Your task to perform on an android device: Look up the best selling patio furniture on Home Depot Image 0: 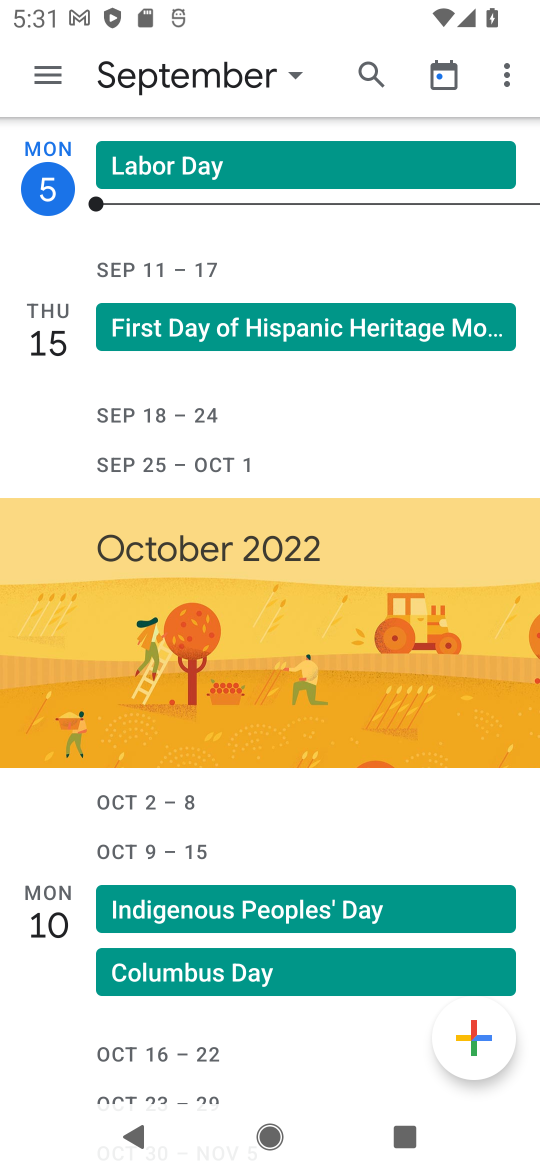
Step 0: press home button
Your task to perform on an android device: Look up the best selling patio furniture on Home Depot Image 1: 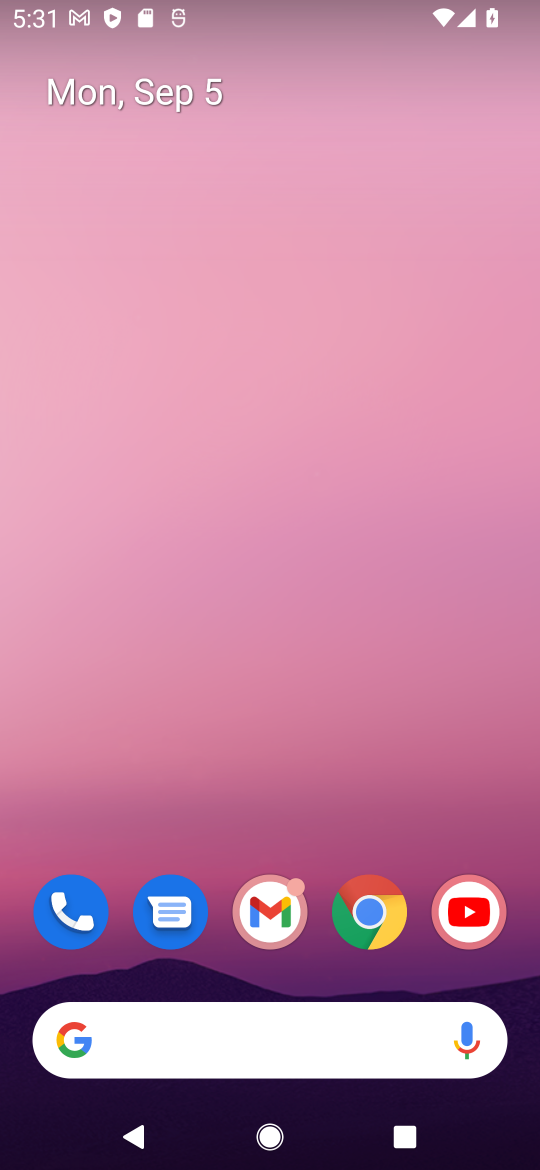
Step 1: click (375, 916)
Your task to perform on an android device: Look up the best selling patio furniture on Home Depot Image 2: 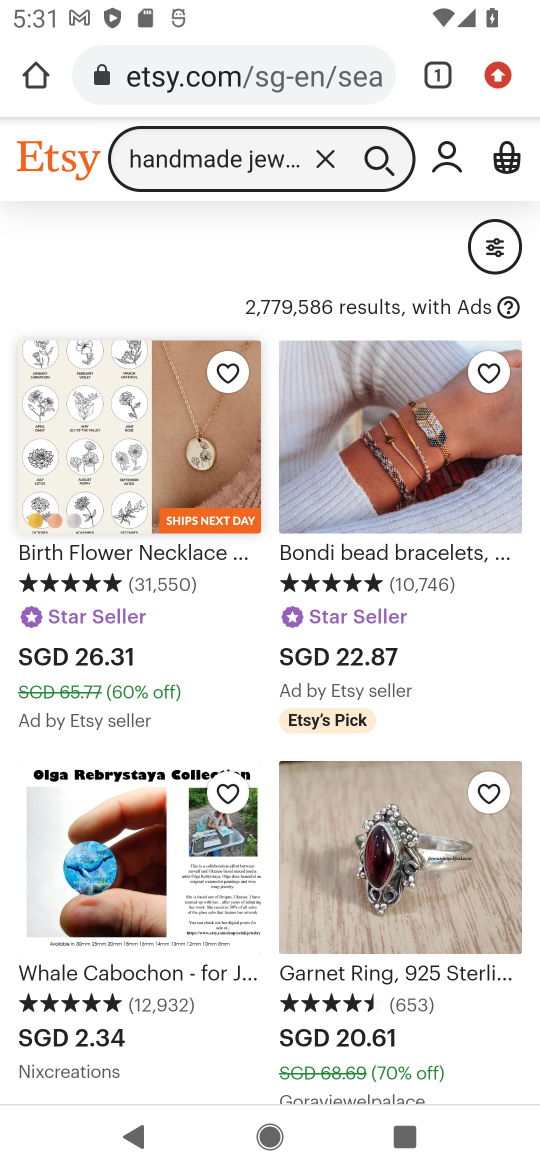
Step 2: click (248, 73)
Your task to perform on an android device: Look up the best selling patio furniture on Home Depot Image 3: 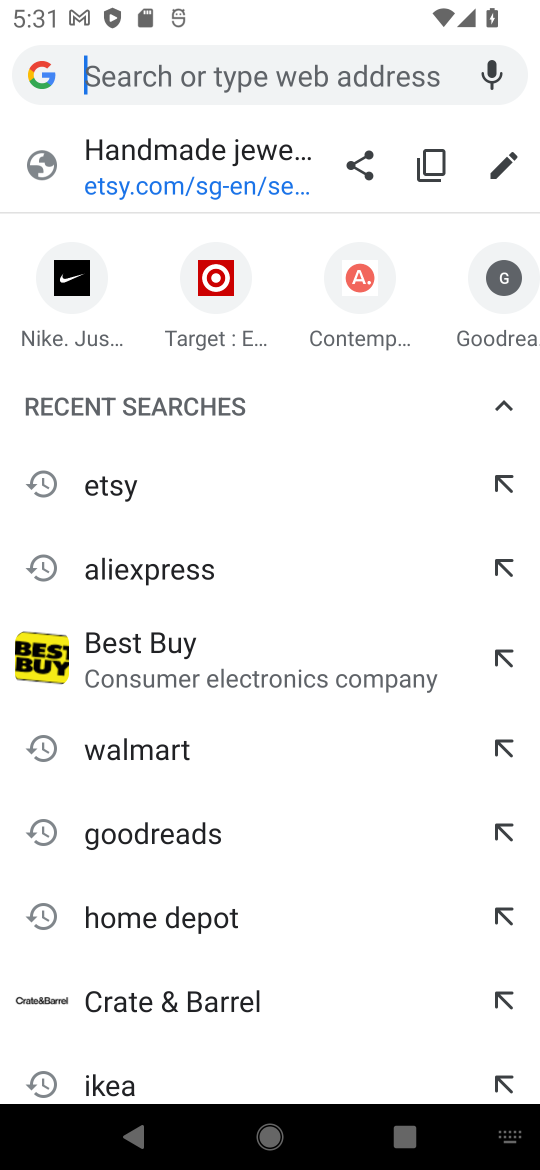
Step 3: type "home depot"
Your task to perform on an android device: Look up the best selling patio furniture on Home Depot Image 4: 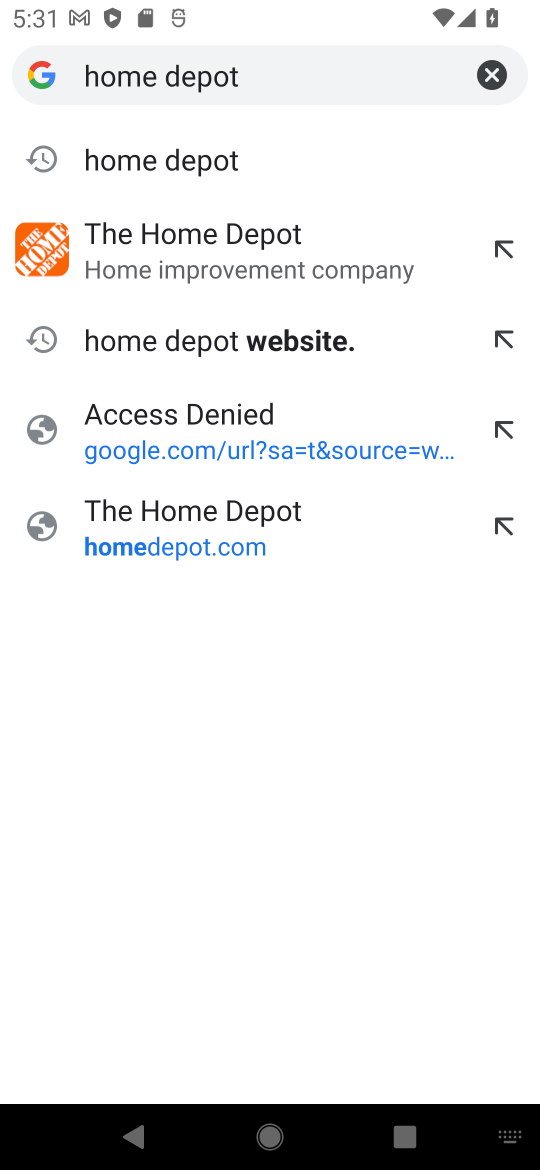
Step 4: press enter
Your task to perform on an android device: Look up the best selling patio furniture on Home Depot Image 5: 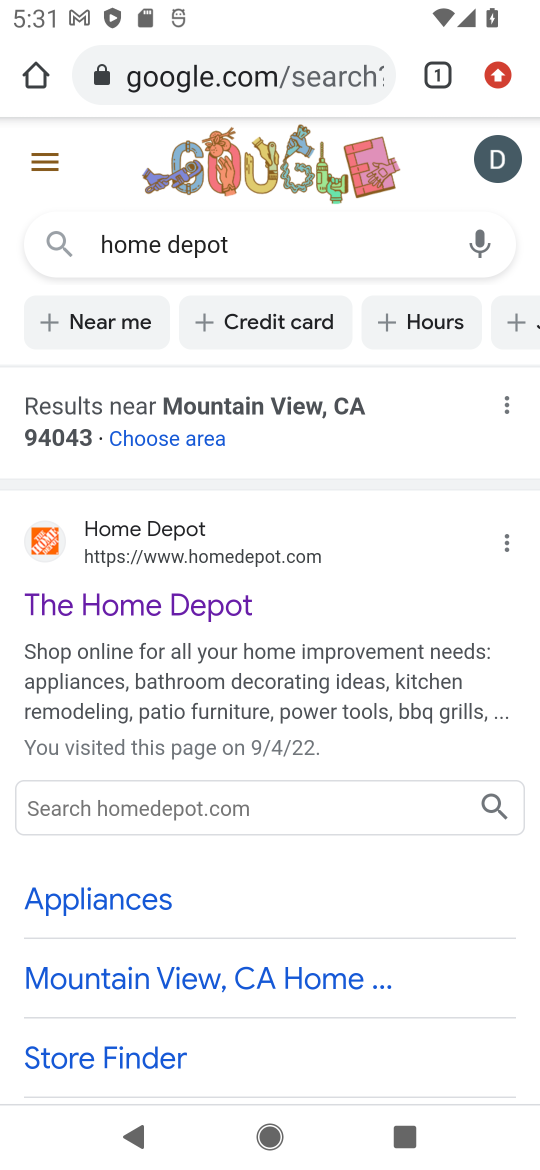
Step 5: click (206, 581)
Your task to perform on an android device: Look up the best selling patio furniture on Home Depot Image 6: 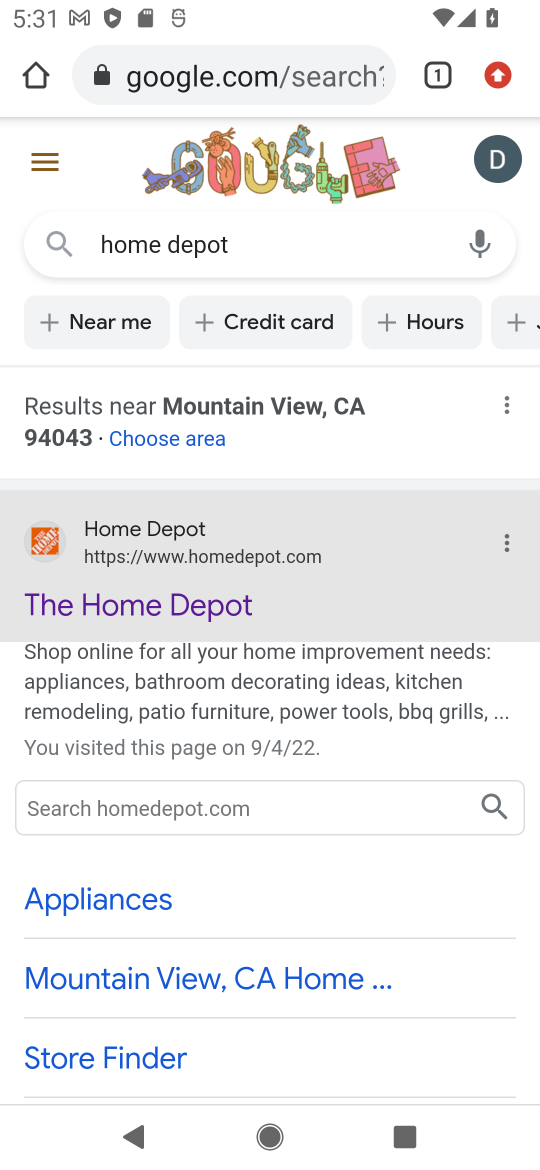
Step 6: click (205, 599)
Your task to perform on an android device: Look up the best selling patio furniture on Home Depot Image 7: 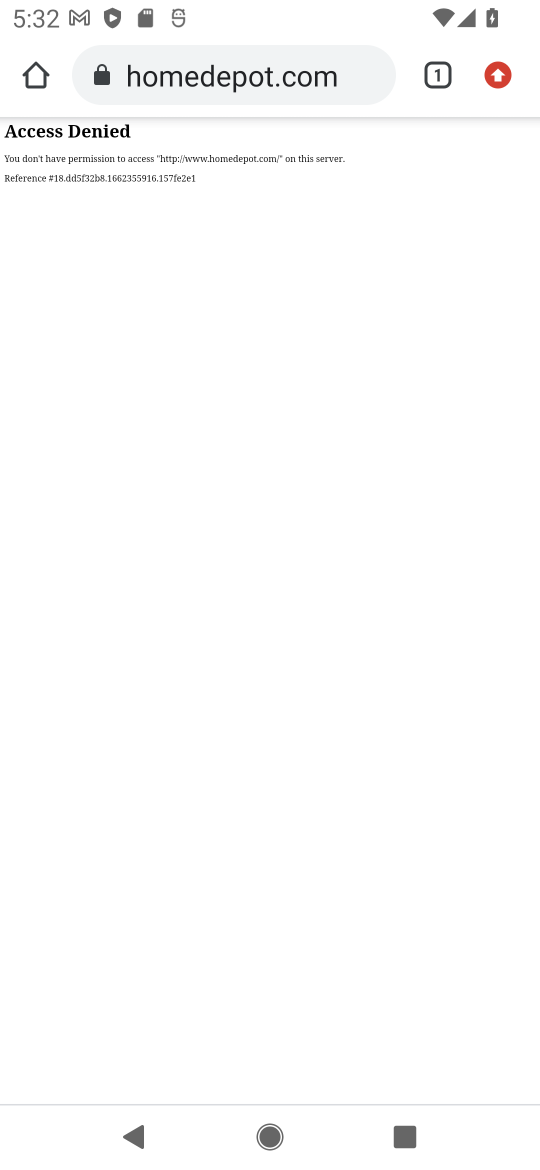
Step 7: task complete